Your task to perform on an android device: snooze an email in the gmail app Image 0: 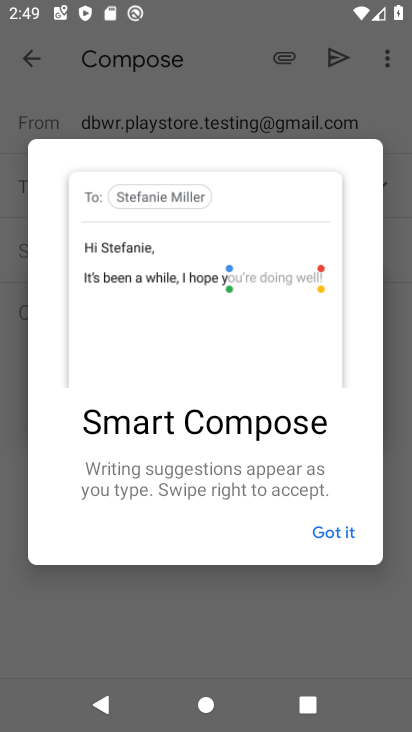
Step 0: press home button
Your task to perform on an android device: snooze an email in the gmail app Image 1: 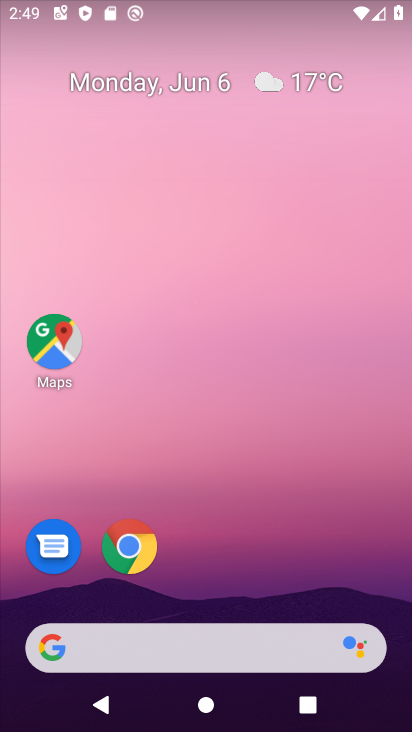
Step 1: drag from (277, 596) to (271, 41)
Your task to perform on an android device: snooze an email in the gmail app Image 2: 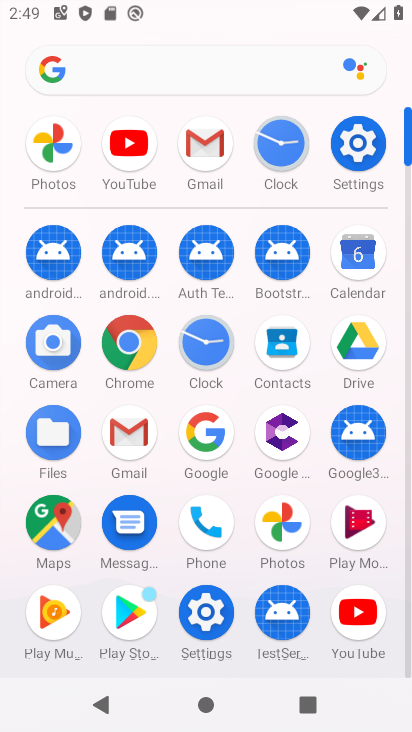
Step 2: click (214, 149)
Your task to perform on an android device: snooze an email in the gmail app Image 3: 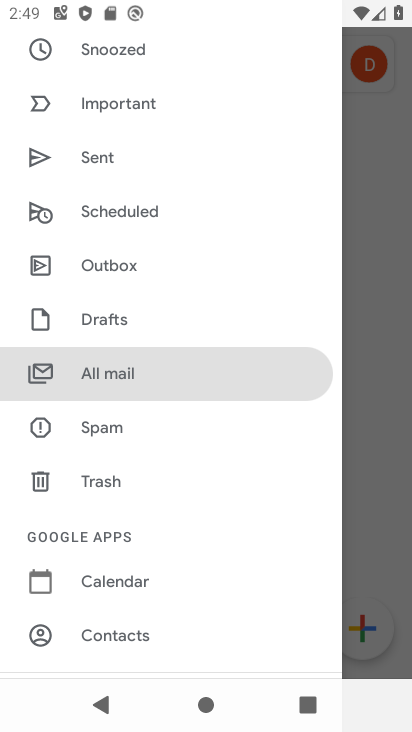
Step 3: task complete